Your task to perform on an android device: delete a single message in the gmail app Image 0: 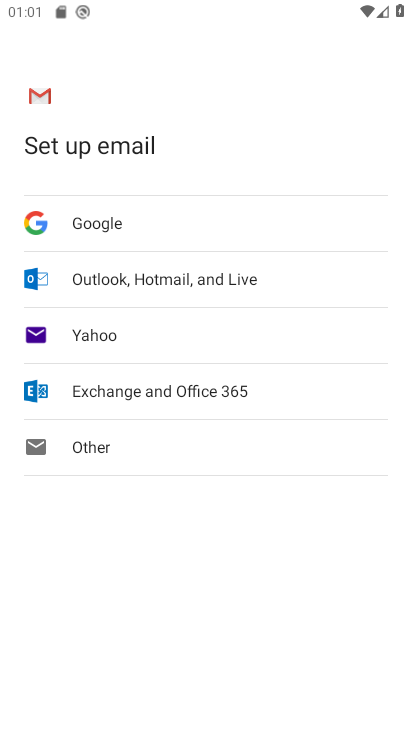
Step 0: press home button
Your task to perform on an android device: delete a single message in the gmail app Image 1: 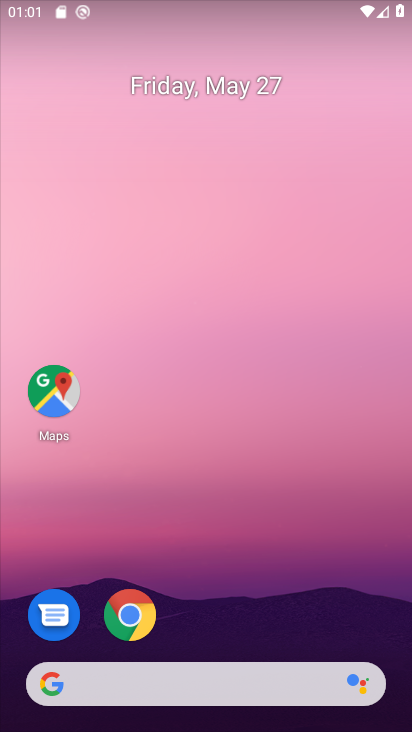
Step 1: drag from (286, 599) to (279, 543)
Your task to perform on an android device: delete a single message in the gmail app Image 2: 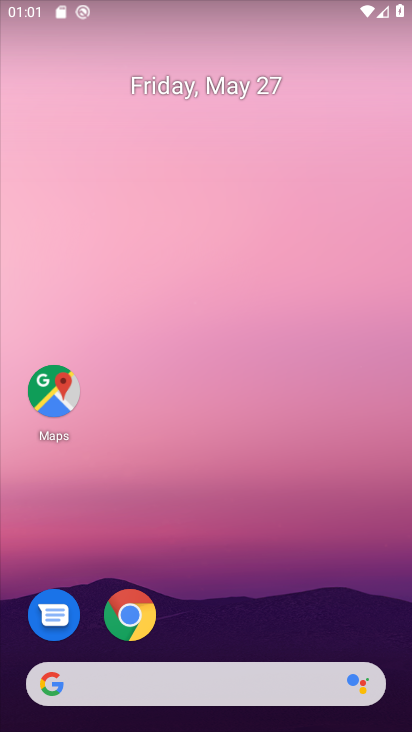
Step 2: drag from (283, 602) to (337, 119)
Your task to perform on an android device: delete a single message in the gmail app Image 3: 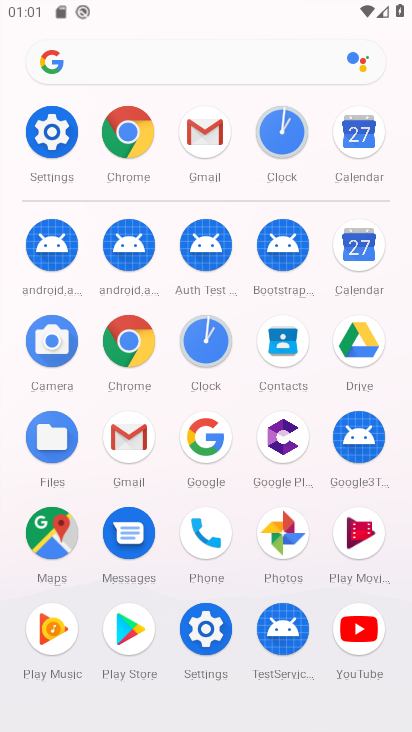
Step 3: click (140, 444)
Your task to perform on an android device: delete a single message in the gmail app Image 4: 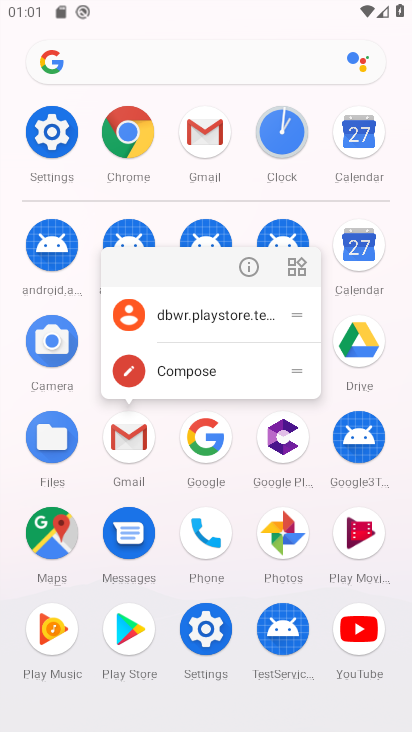
Step 4: click (140, 444)
Your task to perform on an android device: delete a single message in the gmail app Image 5: 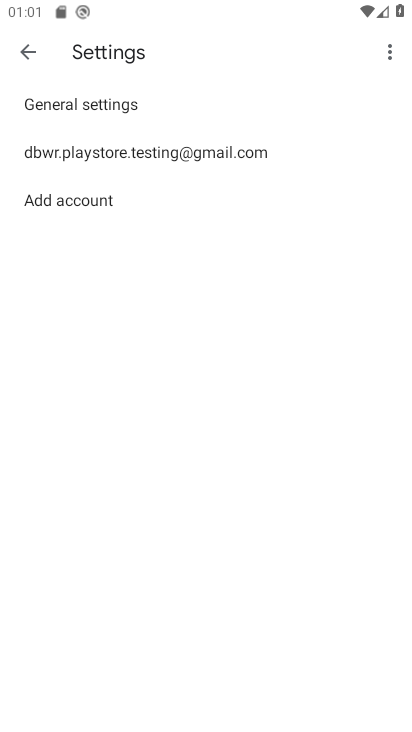
Step 5: click (27, 46)
Your task to perform on an android device: delete a single message in the gmail app Image 6: 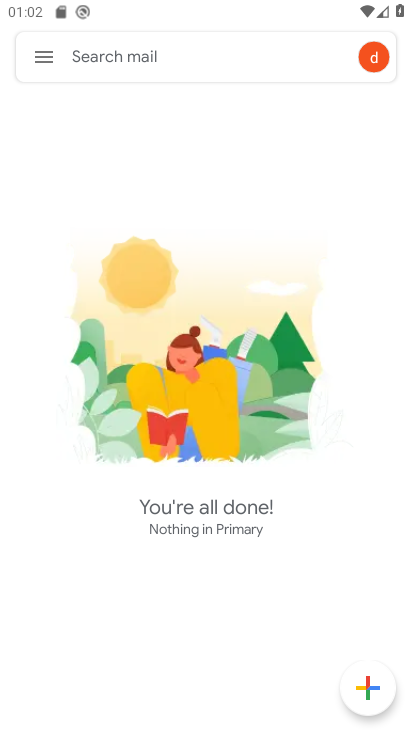
Step 6: task complete